Your task to perform on an android device: clear all cookies in the chrome app Image 0: 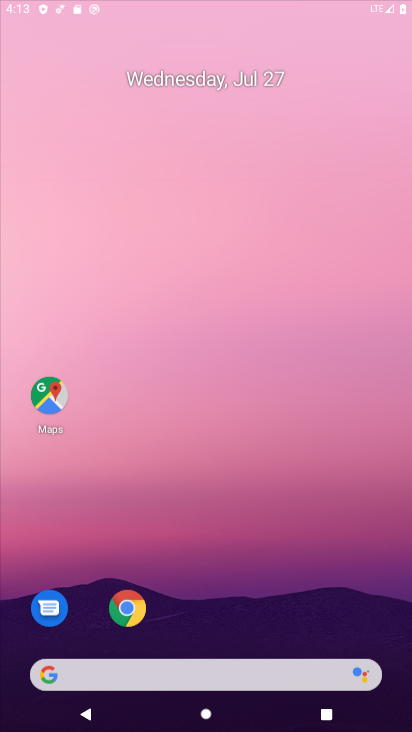
Step 0: press back button
Your task to perform on an android device: clear all cookies in the chrome app Image 1: 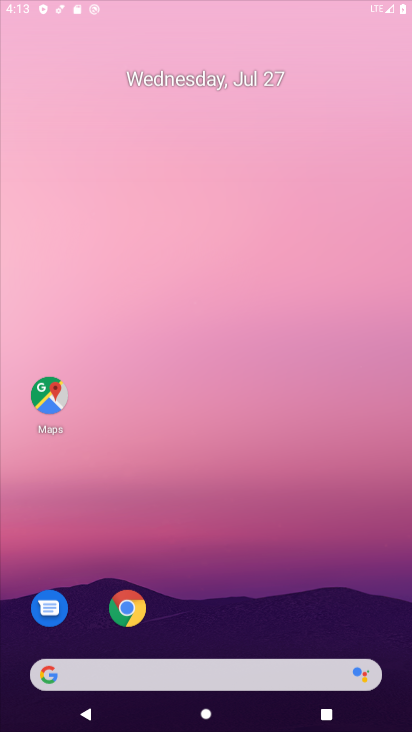
Step 1: drag from (177, 196) to (245, 157)
Your task to perform on an android device: clear all cookies in the chrome app Image 2: 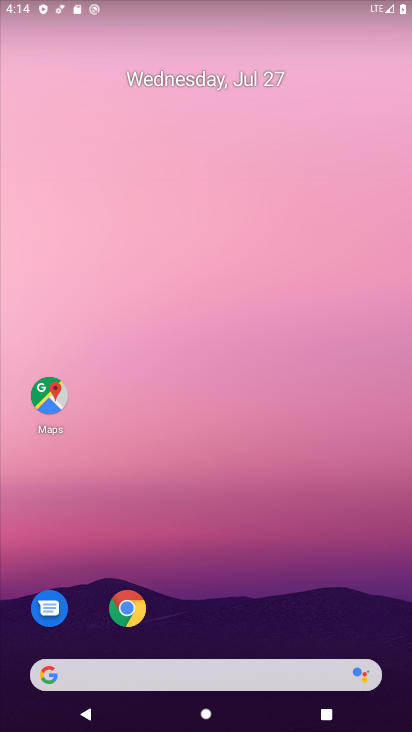
Step 2: drag from (204, 472) to (158, 160)
Your task to perform on an android device: clear all cookies in the chrome app Image 3: 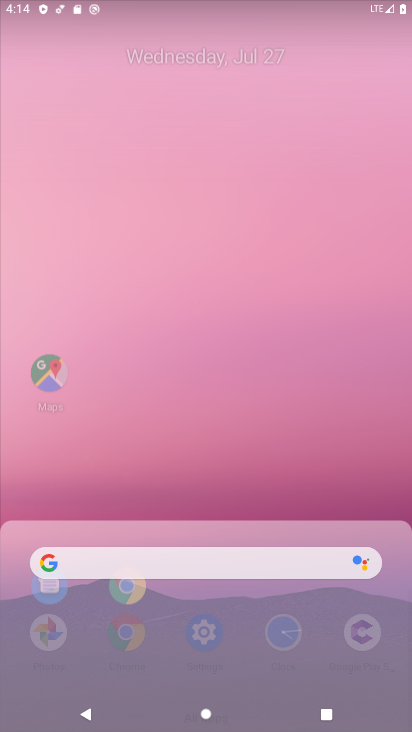
Step 3: drag from (248, 424) to (244, 183)
Your task to perform on an android device: clear all cookies in the chrome app Image 4: 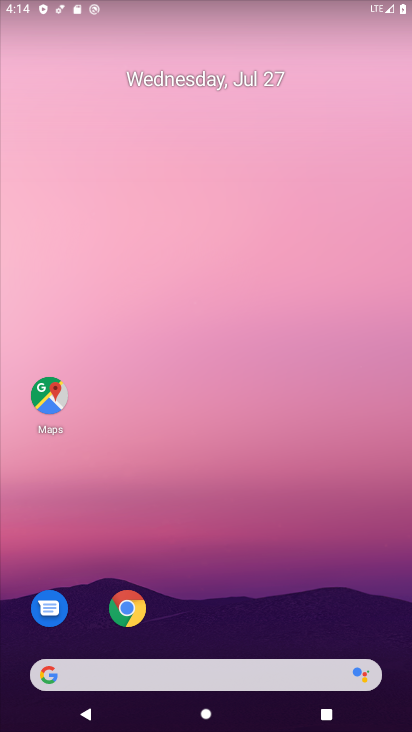
Step 4: drag from (280, 463) to (260, 234)
Your task to perform on an android device: clear all cookies in the chrome app Image 5: 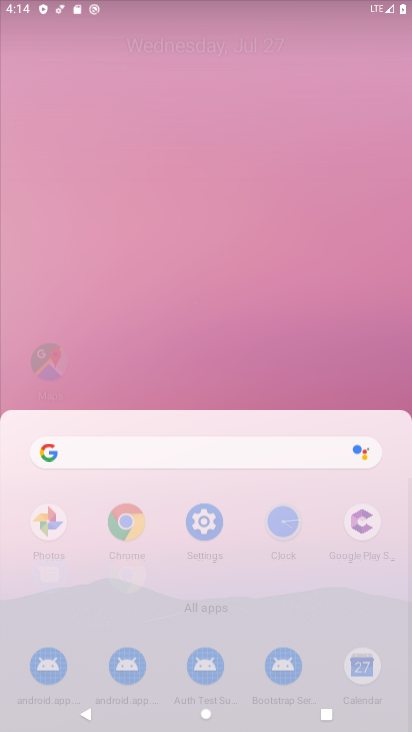
Step 5: drag from (279, 400) to (239, 123)
Your task to perform on an android device: clear all cookies in the chrome app Image 6: 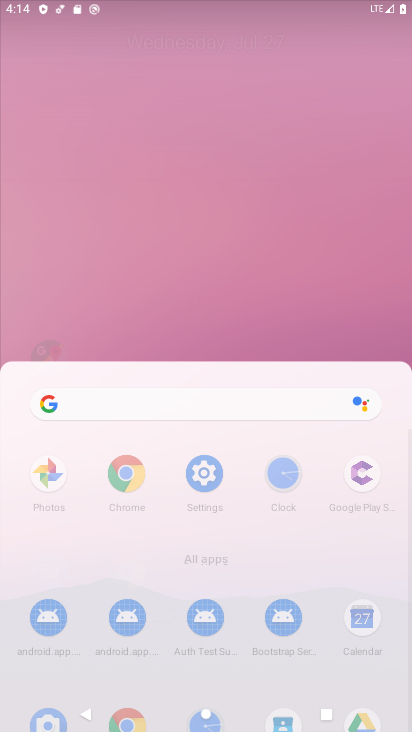
Step 6: drag from (276, 489) to (265, 90)
Your task to perform on an android device: clear all cookies in the chrome app Image 7: 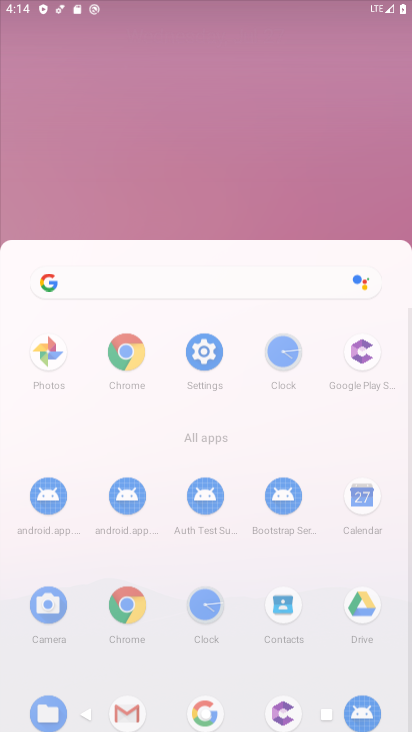
Step 7: drag from (256, 415) to (241, 86)
Your task to perform on an android device: clear all cookies in the chrome app Image 8: 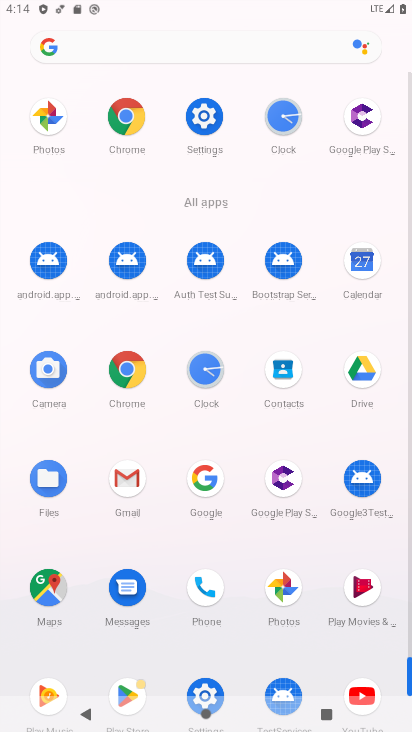
Step 8: drag from (207, 375) to (207, 94)
Your task to perform on an android device: clear all cookies in the chrome app Image 9: 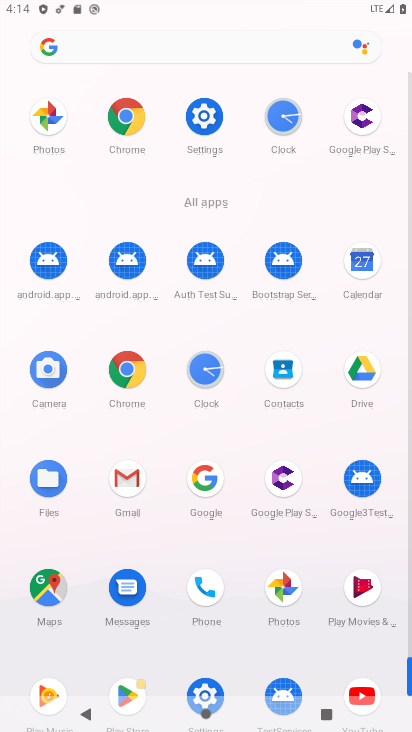
Step 9: click (122, 372)
Your task to perform on an android device: clear all cookies in the chrome app Image 10: 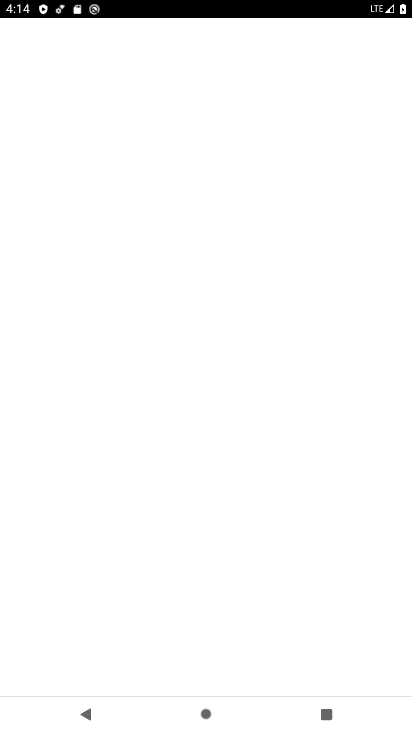
Step 10: click (136, 365)
Your task to perform on an android device: clear all cookies in the chrome app Image 11: 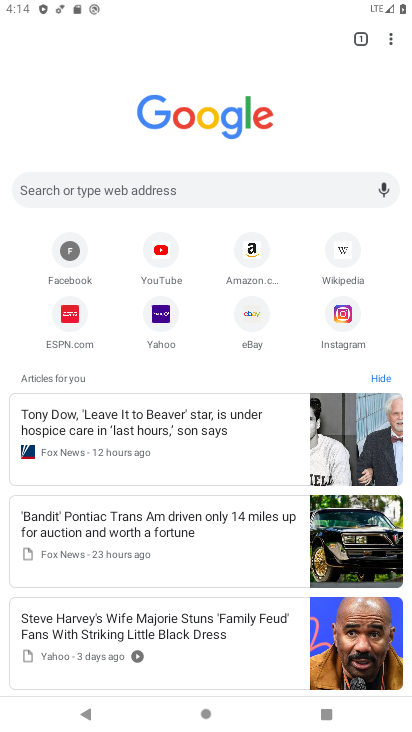
Step 11: click (99, 188)
Your task to perform on an android device: clear all cookies in the chrome app Image 12: 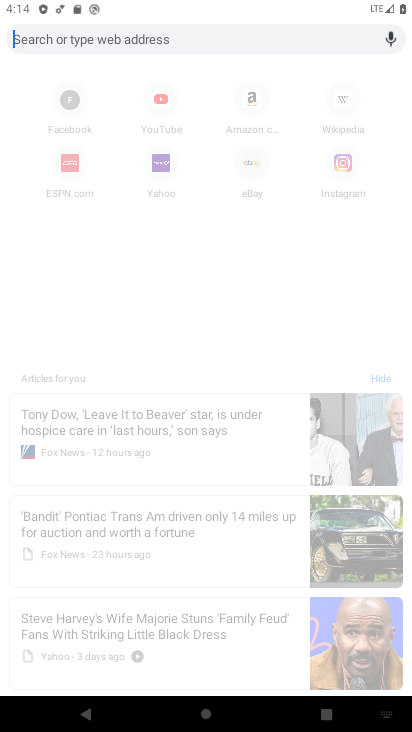
Step 12: press back button
Your task to perform on an android device: clear all cookies in the chrome app Image 13: 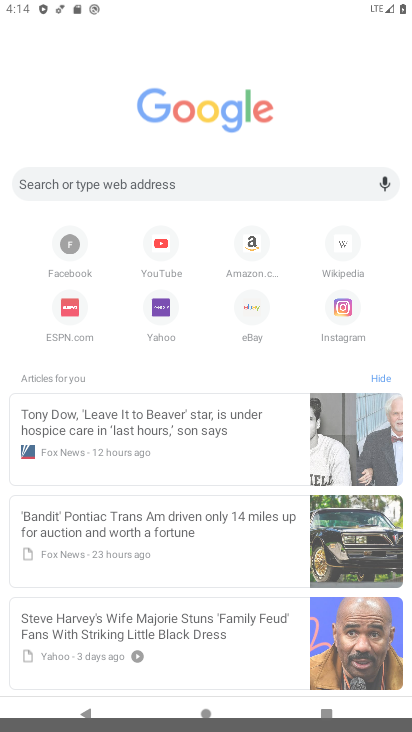
Step 13: press back button
Your task to perform on an android device: clear all cookies in the chrome app Image 14: 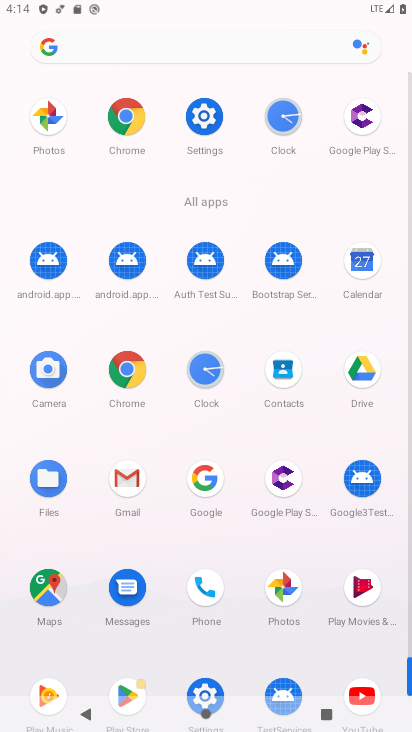
Step 14: click (129, 122)
Your task to perform on an android device: clear all cookies in the chrome app Image 15: 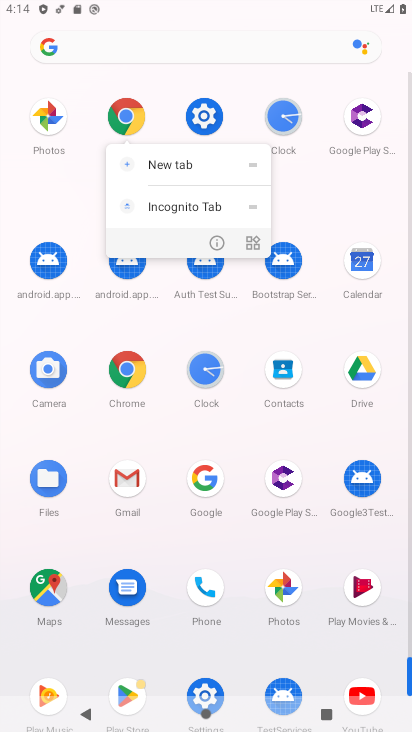
Step 15: click (124, 118)
Your task to perform on an android device: clear all cookies in the chrome app Image 16: 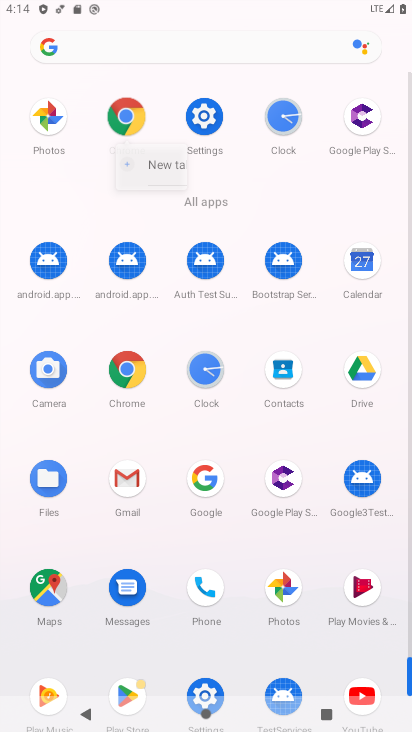
Step 16: click (124, 118)
Your task to perform on an android device: clear all cookies in the chrome app Image 17: 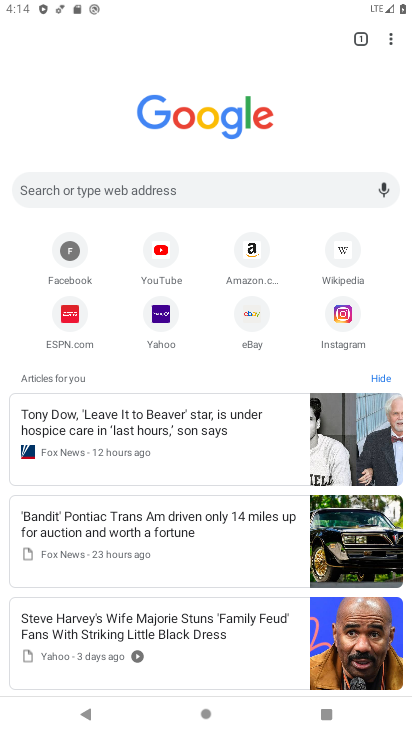
Step 17: drag from (392, 33) to (258, 327)
Your task to perform on an android device: clear all cookies in the chrome app Image 18: 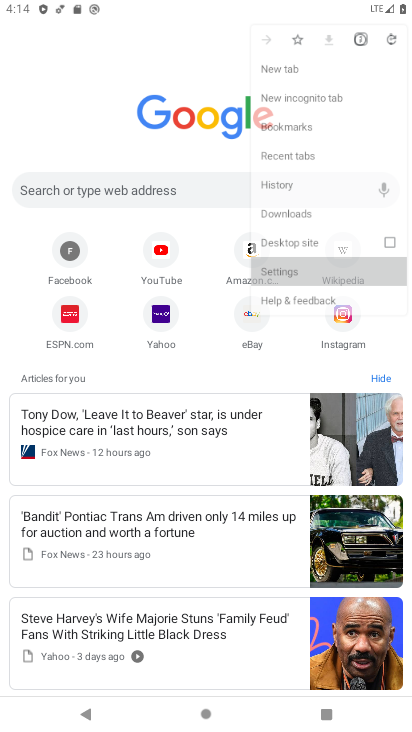
Step 18: click (258, 327)
Your task to perform on an android device: clear all cookies in the chrome app Image 19: 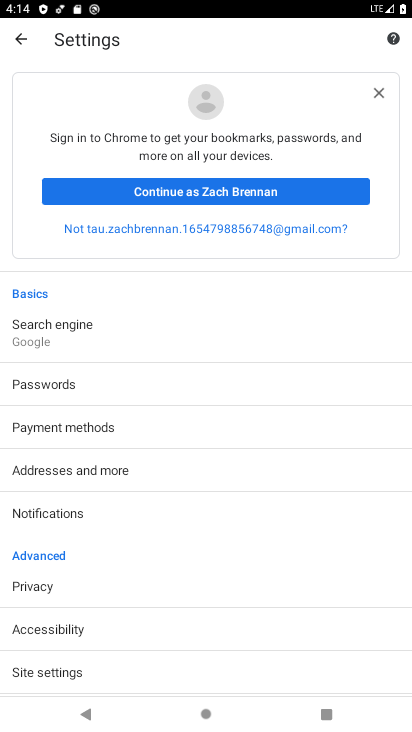
Step 19: drag from (36, 515) to (54, 237)
Your task to perform on an android device: clear all cookies in the chrome app Image 20: 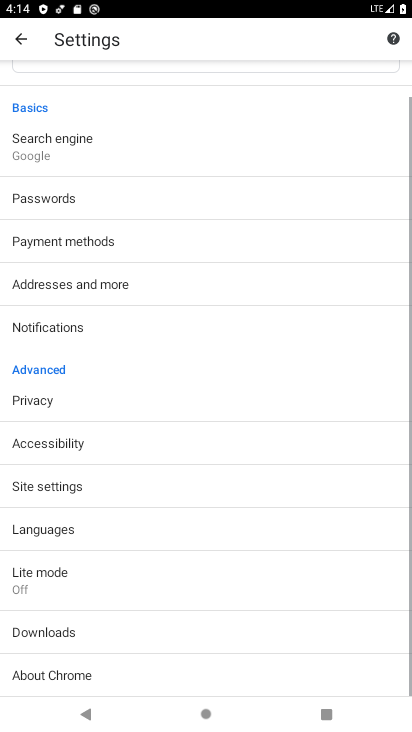
Step 20: drag from (62, 462) to (71, 237)
Your task to perform on an android device: clear all cookies in the chrome app Image 21: 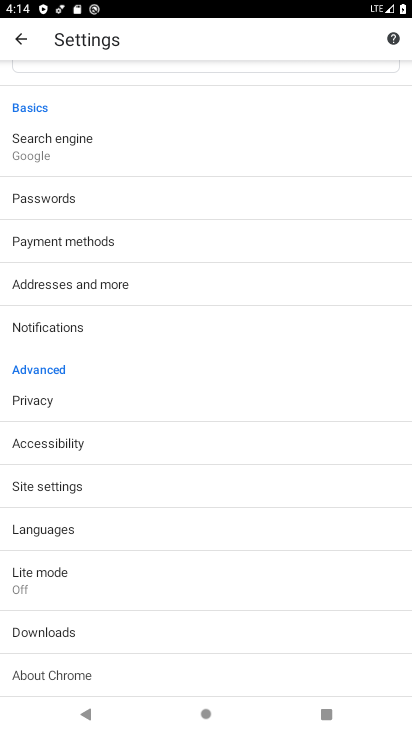
Step 21: drag from (96, 589) to (87, 282)
Your task to perform on an android device: clear all cookies in the chrome app Image 22: 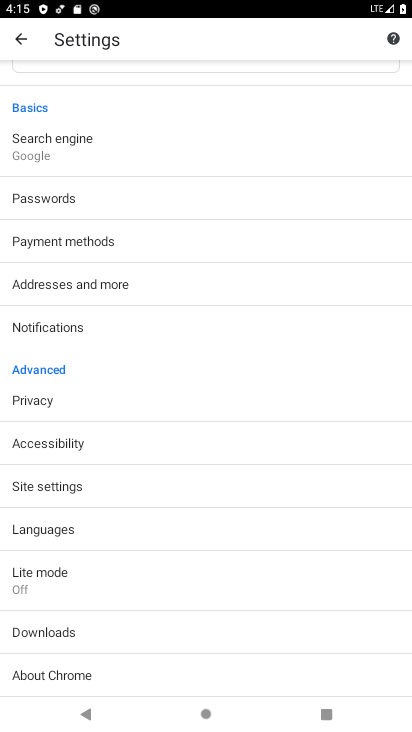
Step 22: click (37, 480)
Your task to perform on an android device: clear all cookies in the chrome app Image 23: 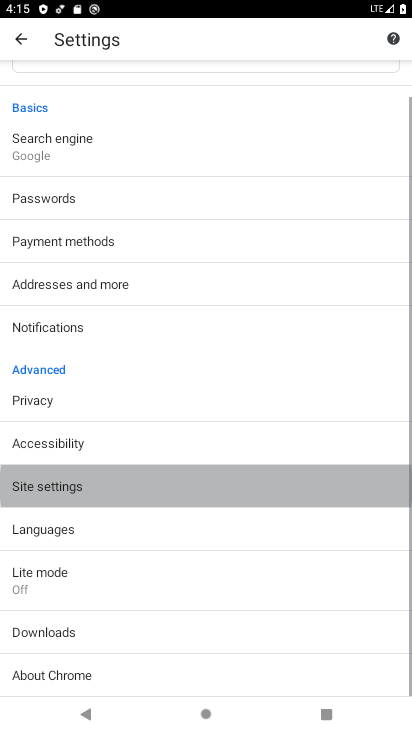
Step 23: click (37, 479)
Your task to perform on an android device: clear all cookies in the chrome app Image 24: 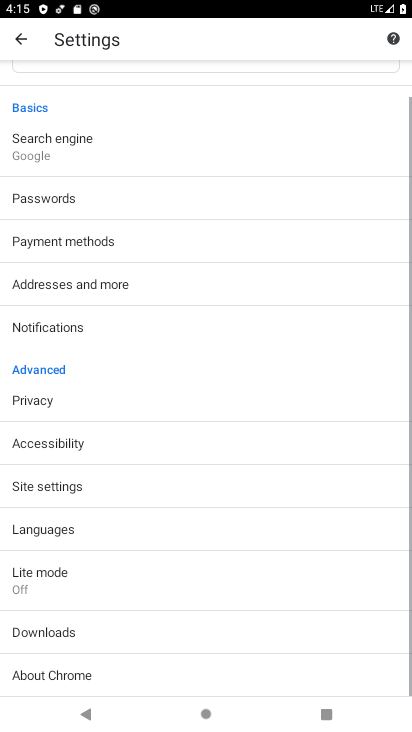
Step 24: click (37, 479)
Your task to perform on an android device: clear all cookies in the chrome app Image 25: 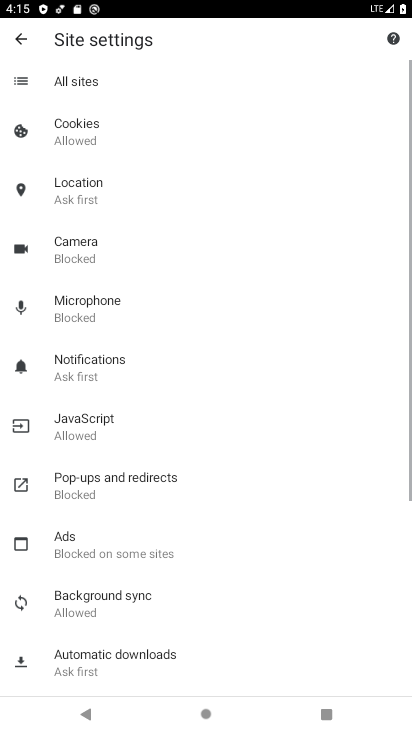
Step 25: click (75, 126)
Your task to perform on an android device: clear all cookies in the chrome app Image 26: 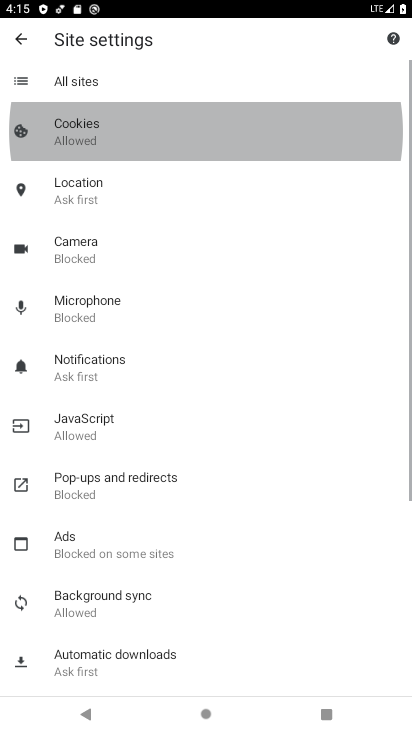
Step 26: click (75, 130)
Your task to perform on an android device: clear all cookies in the chrome app Image 27: 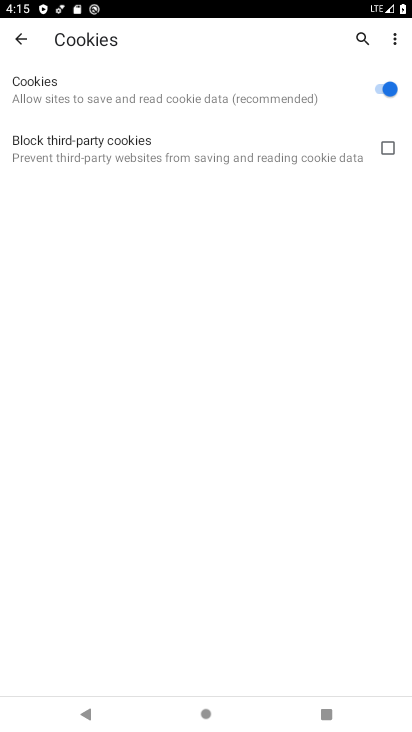
Step 27: click (391, 83)
Your task to perform on an android device: clear all cookies in the chrome app Image 28: 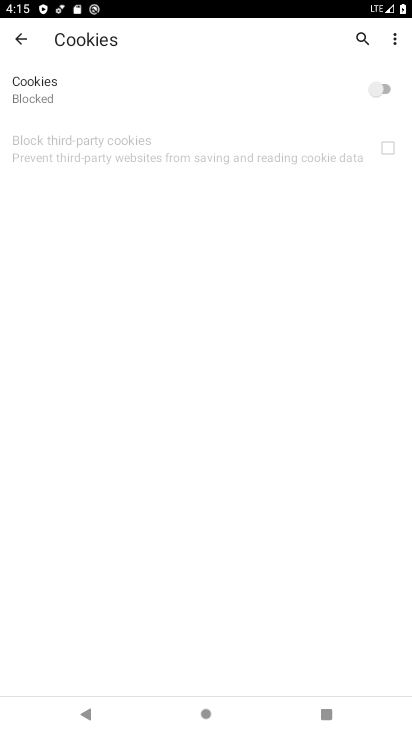
Step 28: task complete